Your task to perform on an android device: Open Google Maps Image 0: 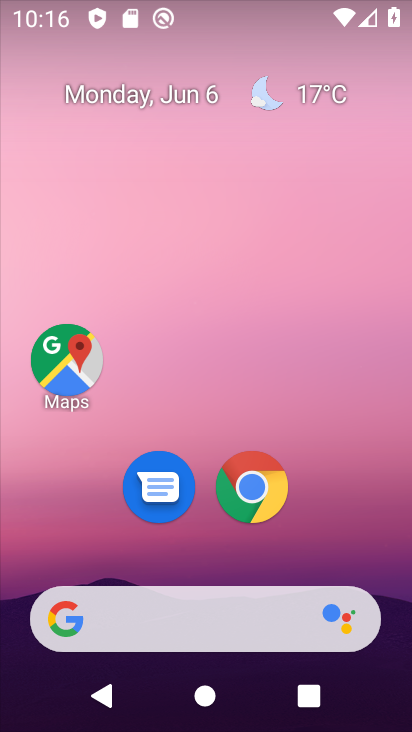
Step 0: click (60, 362)
Your task to perform on an android device: Open Google Maps Image 1: 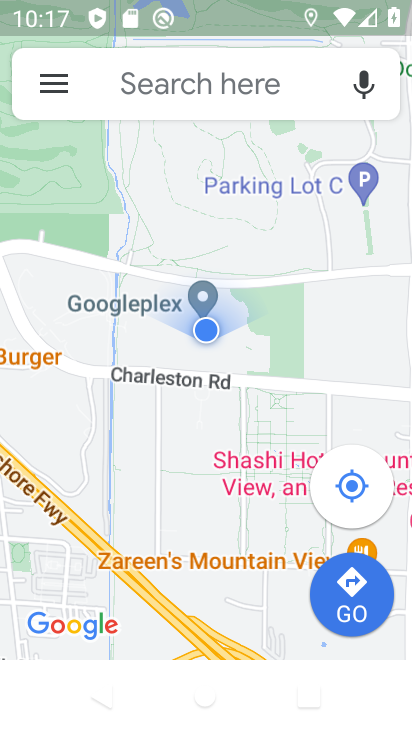
Step 1: task complete